Your task to perform on an android device: Turn on the flashlight Image 0: 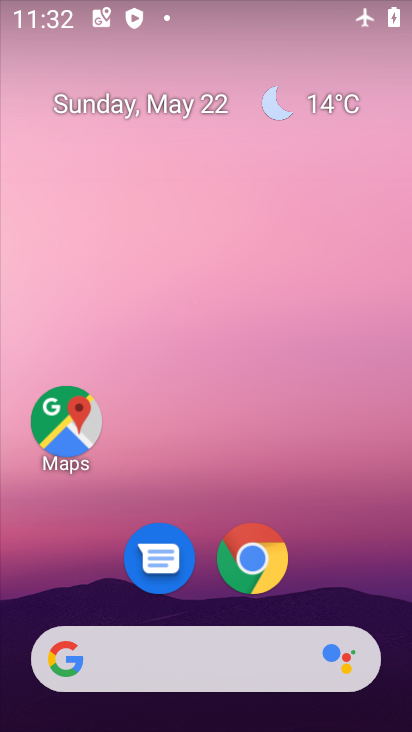
Step 0: drag from (210, 7) to (209, 698)
Your task to perform on an android device: Turn on the flashlight Image 1: 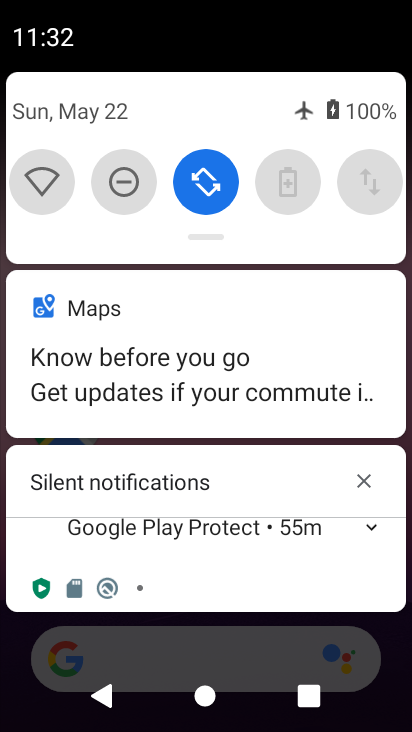
Step 1: task complete